Your task to perform on an android device: open chrome privacy settings Image 0: 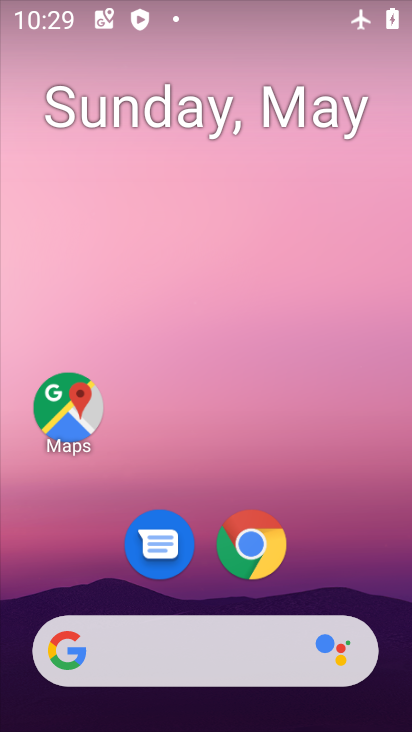
Step 0: drag from (320, 599) to (343, 291)
Your task to perform on an android device: open chrome privacy settings Image 1: 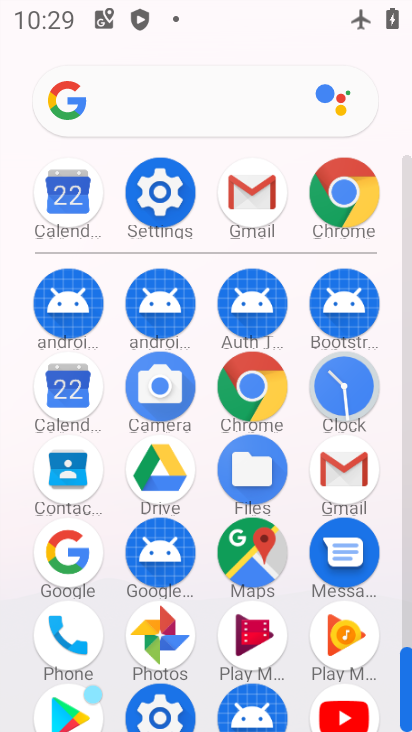
Step 1: click (162, 197)
Your task to perform on an android device: open chrome privacy settings Image 2: 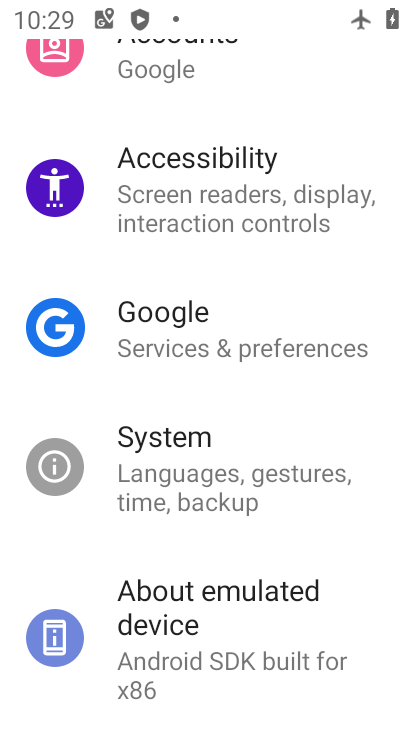
Step 2: press home button
Your task to perform on an android device: open chrome privacy settings Image 3: 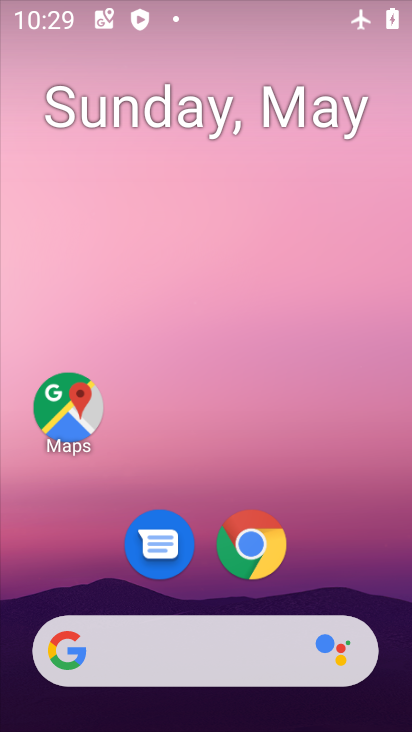
Step 3: click (249, 538)
Your task to perform on an android device: open chrome privacy settings Image 4: 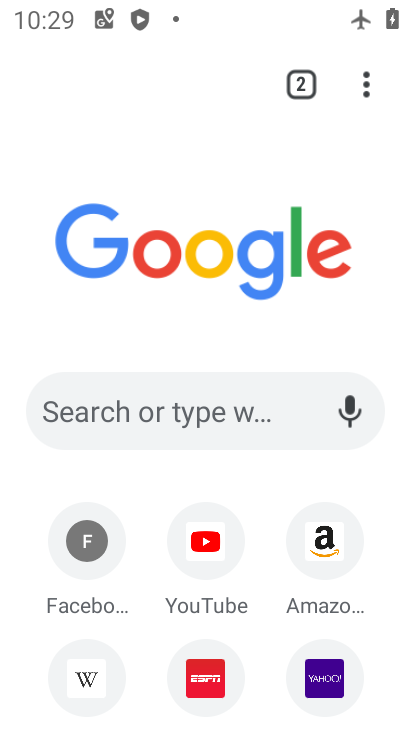
Step 4: click (360, 77)
Your task to perform on an android device: open chrome privacy settings Image 5: 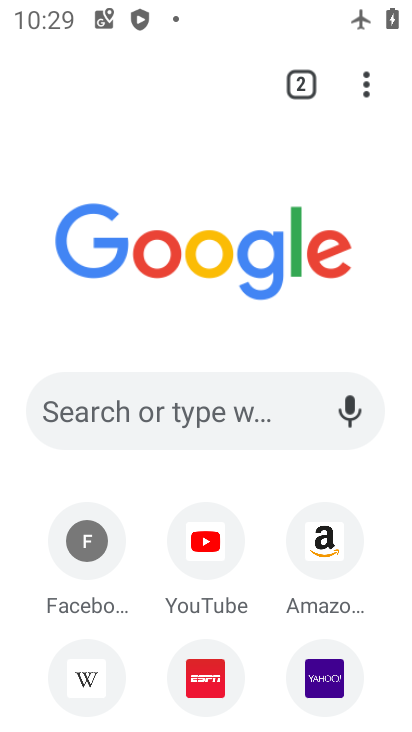
Step 5: click (376, 74)
Your task to perform on an android device: open chrome privacy settings Image 6: 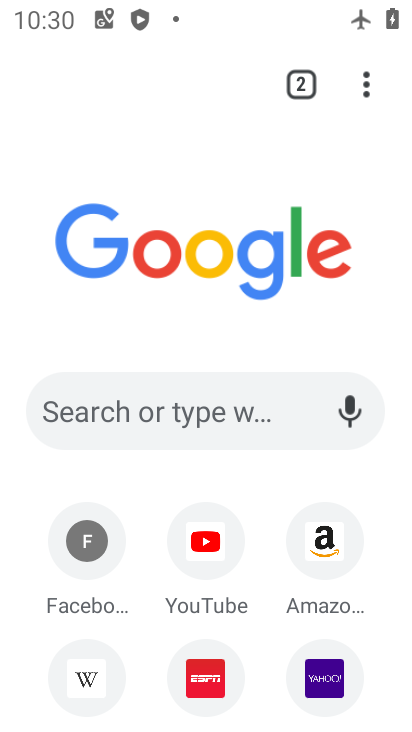
Step 6: click (370, 80)
Your task to perform on an android device: open chrome privacy settings Image 7: 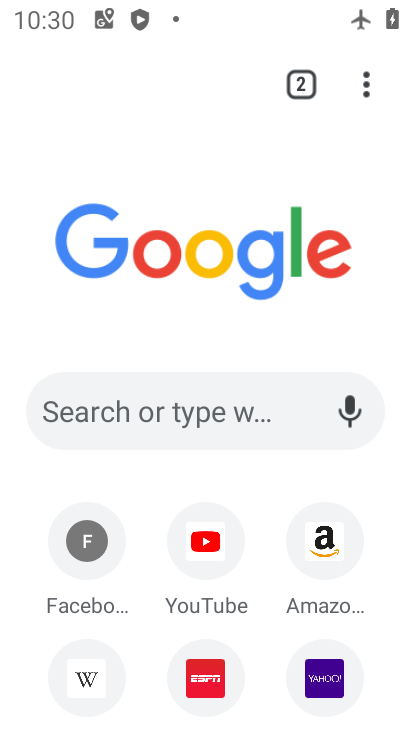
Step 7: click (364, 87)
Your task to perform on an android device: open chrome privacy settings Image 8: 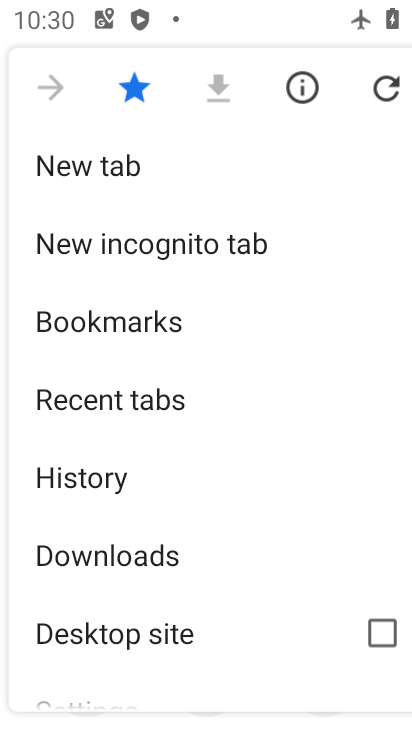
Step 8: drag from (195, 604) to (224, 241)
Your task to perform on an android device: open chrome privacy settings Image 9: 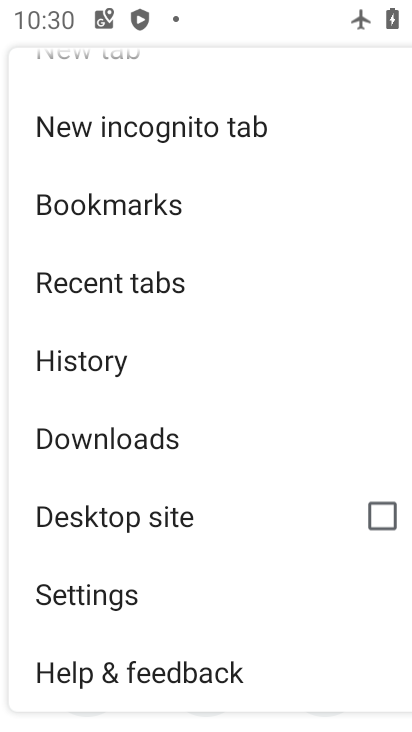
Step 9: click (116, 589)
Your task to perform on an android device: open chrome privacy settings Image 10: 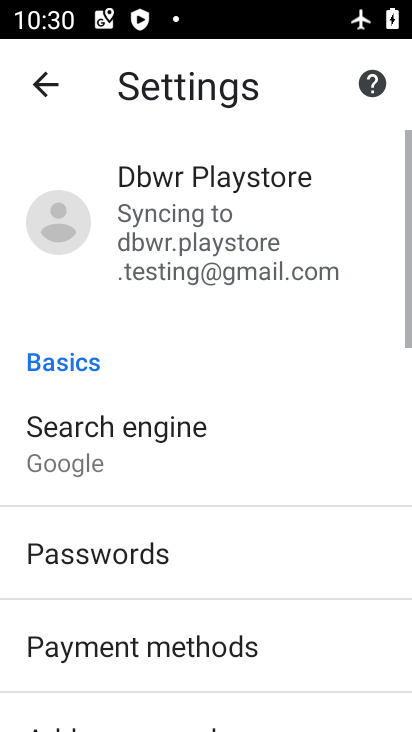
Step 10: drag from (136, 554) to (199, 132)
Your task to perform on an android device: open chrome privacy settings Image 11: 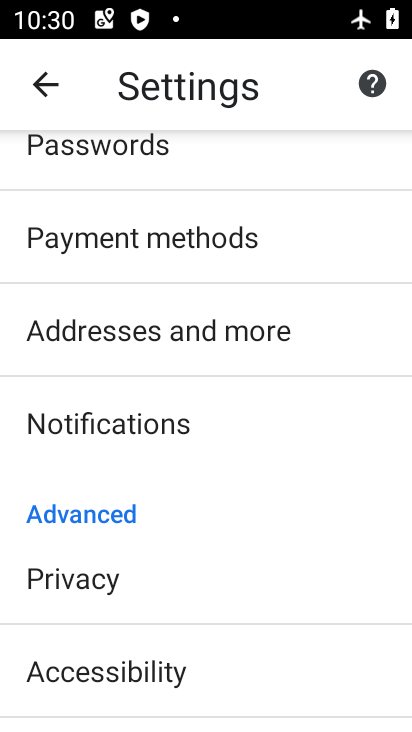
Step 11: click (114, 582)
Your task to perform on an android device: open chrome privacy settings Image 12: 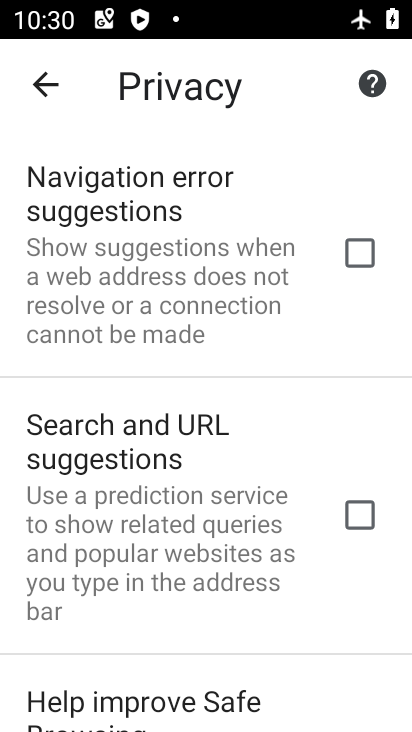
Step 12: task complete